Your task to perform on an android device: turn on wifi Image 0: 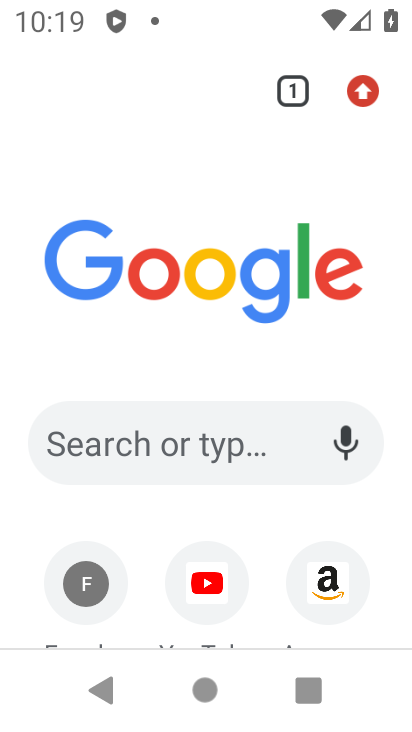
Step 0: press home button
Your task to perform on an android device: turn on wifi Image 1: 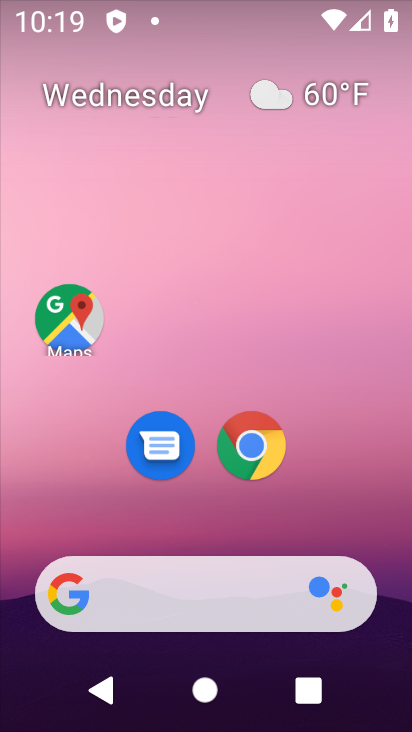
Step 1: drag from (199, 508) to (178, 81)
Your task to perform on an android device: turn on wifi Image 2: 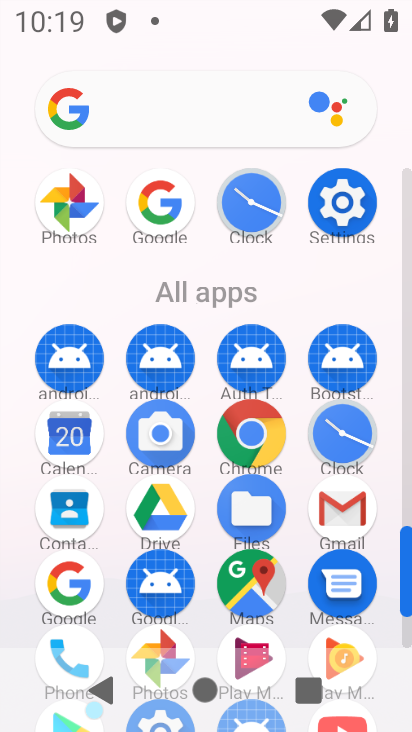
Step 2: click (348, 182)
Your task to perform on an android device: turn on wifi Image 3: 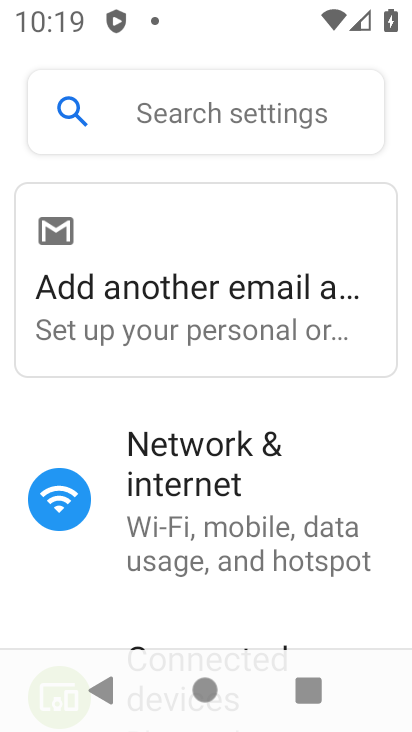
Step 3: click (226, 230)
Your task to perform on an android device: turn on wifi Image 4: 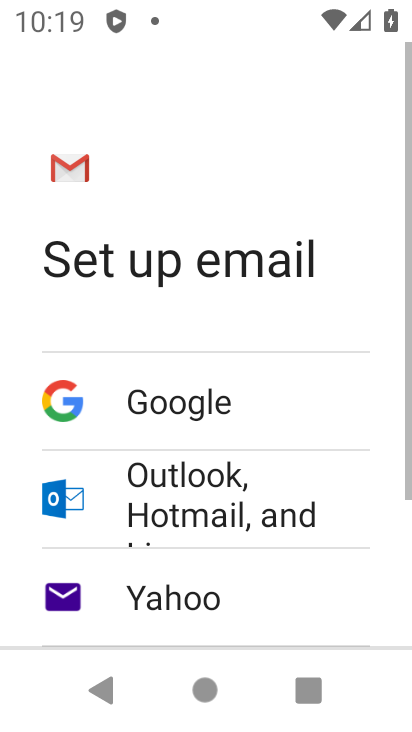
Step 4: press back button
Your task to perform on an android device: turn on wifi Image 5: 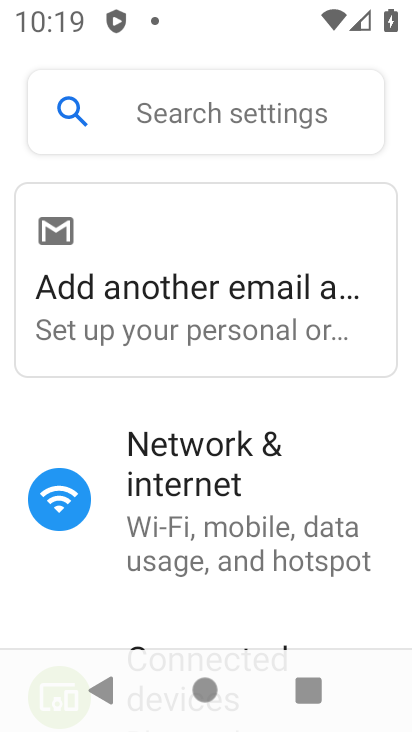
Step 5: click (201, 461)
Your task to perform on an android device: turn on wifi Image 6: 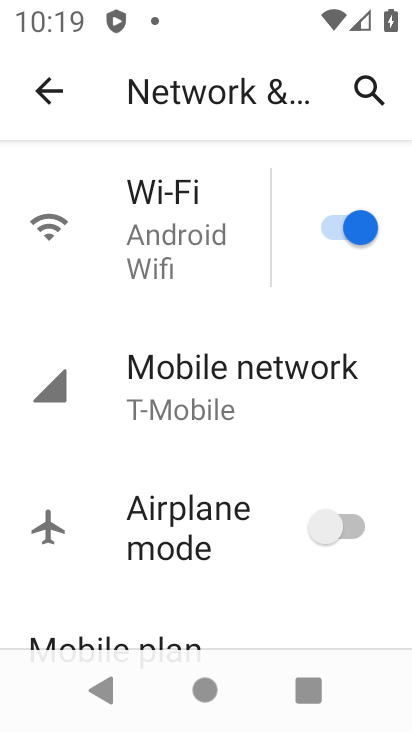
Step 6: task complete